Your task to perform on an android device: Go to calendar. Show me events next week Image 0: 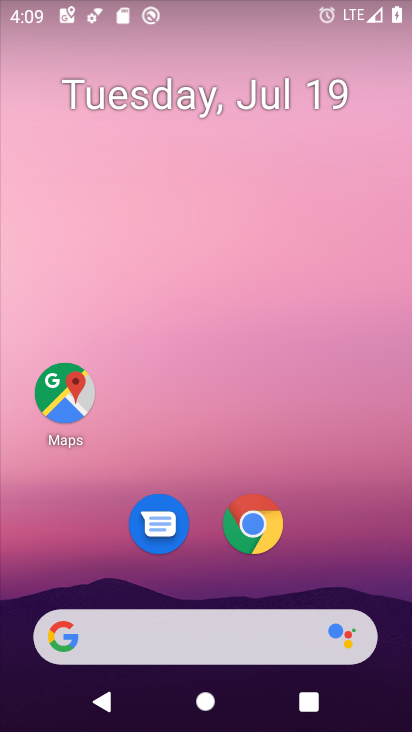
Step 0: drag from (335, 516) to (368, 48)
Your task to perform on an android device: Go to calendar. Show me events next week Image 1: 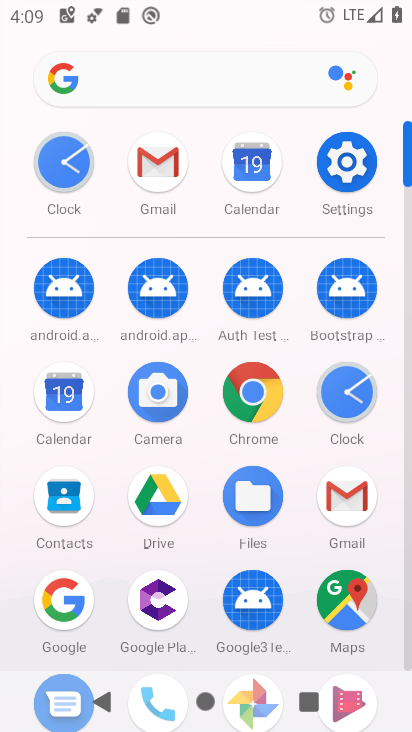
Step 1: click (248, 162)
Your task to perform on an android device: Go to calendar. Show me events next week Image 2: 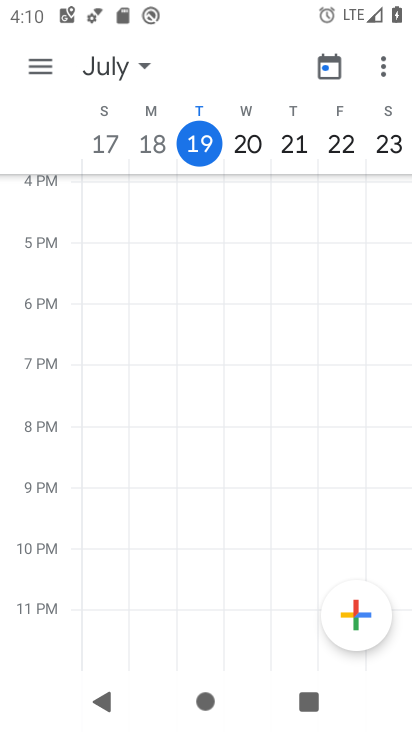
Step 2: task complete